Your task to perform on an android device: open wifi settings Image 0: 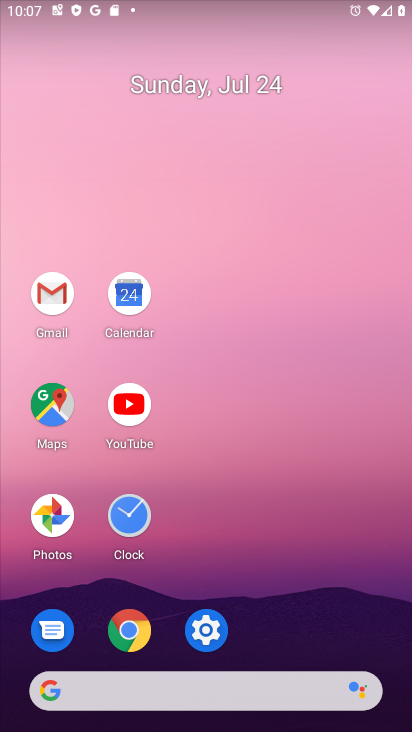
Step 0: click (208, 625)
Your task to perform on an android device: open wifi settings Image 1: 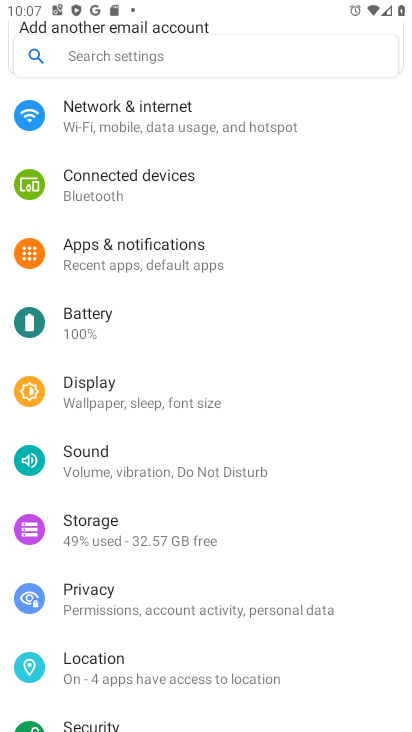
Step 1: click (144, 104)
Your task to perform on an android device: open wifi settings Image 2: 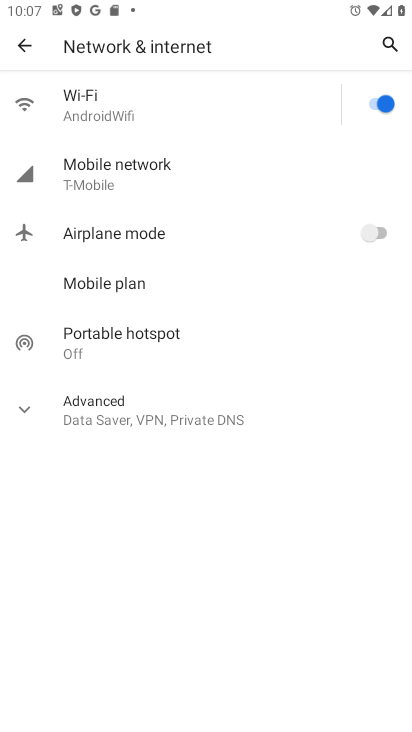
Step 2: click (144, 104)
Your task to perform on an android device: open wifi settings Image 3: 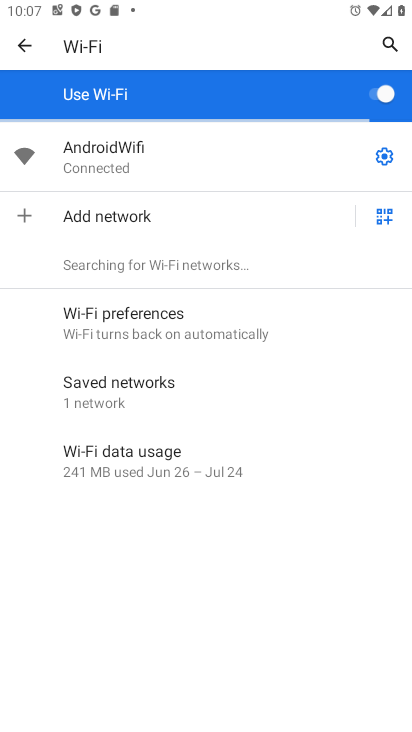
Step 3: task complete